Your task to perform on an android device: Go to eBay Image 0: 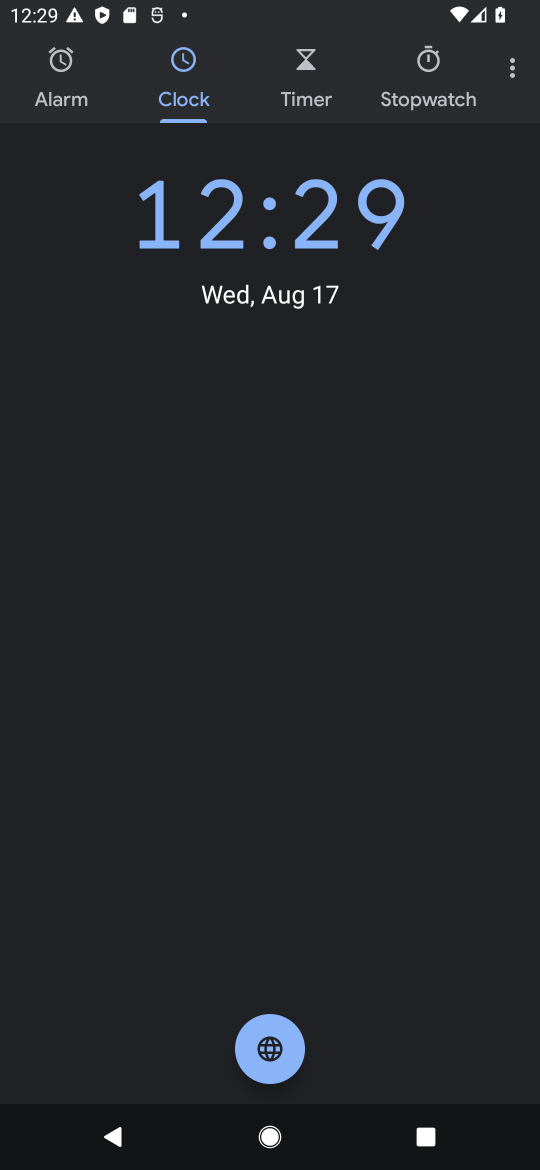
Step 0: press home button
Your task to perform on an android device: Go to eBay Image 1: 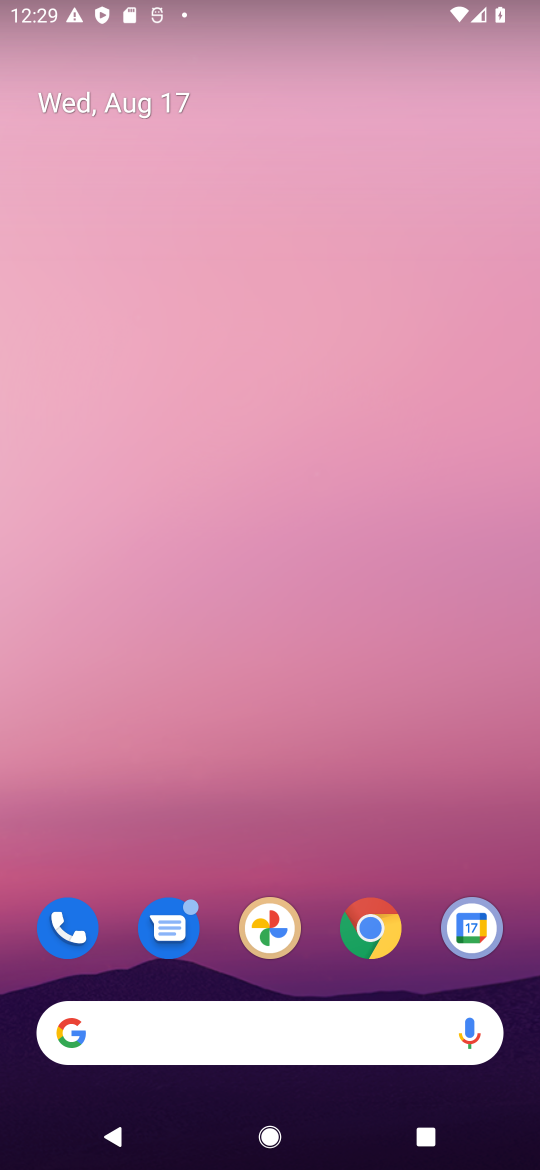
Step 1: click (352, 926)
Your task to perform on an android device: Go to eBay Image 2: 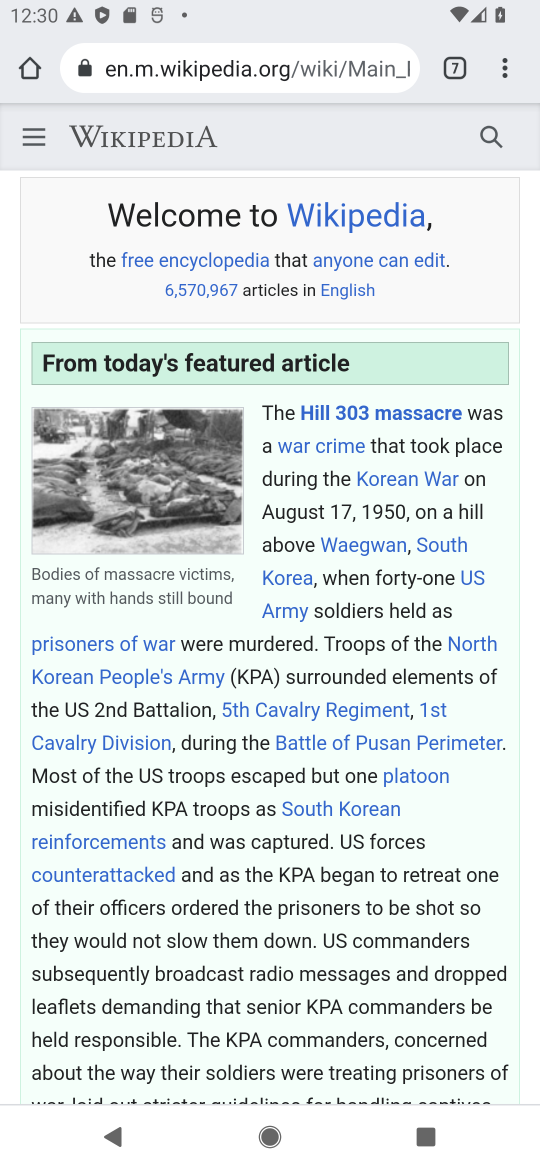
Step 2: click (466, 69)
Your task to perform on an android device: Go to eBay Image 3: 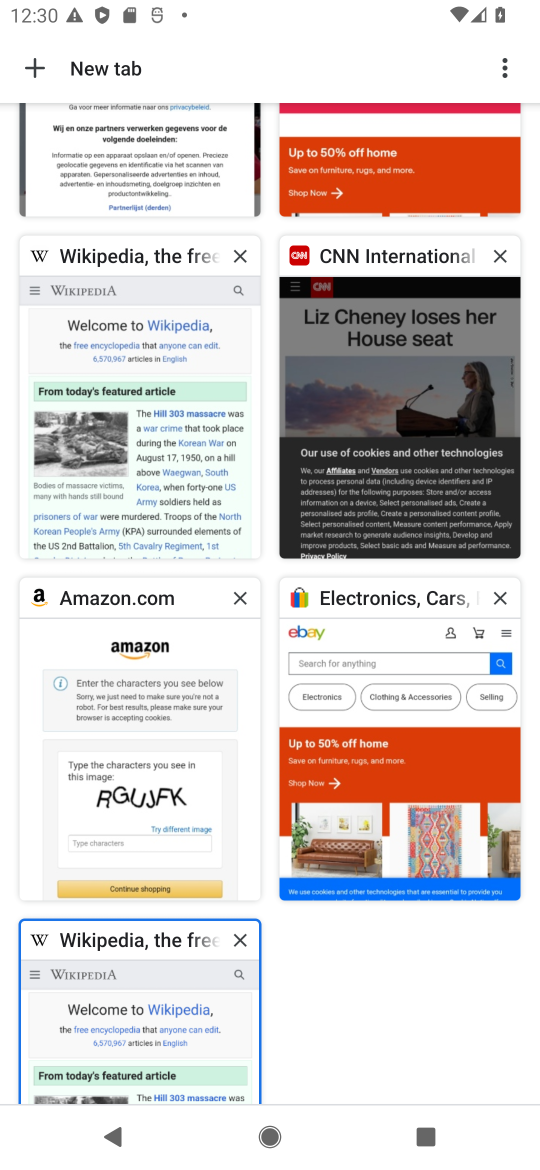
Step 3: click (27, 59)
Your task to perform on an android device: Go to eBay Image 4: 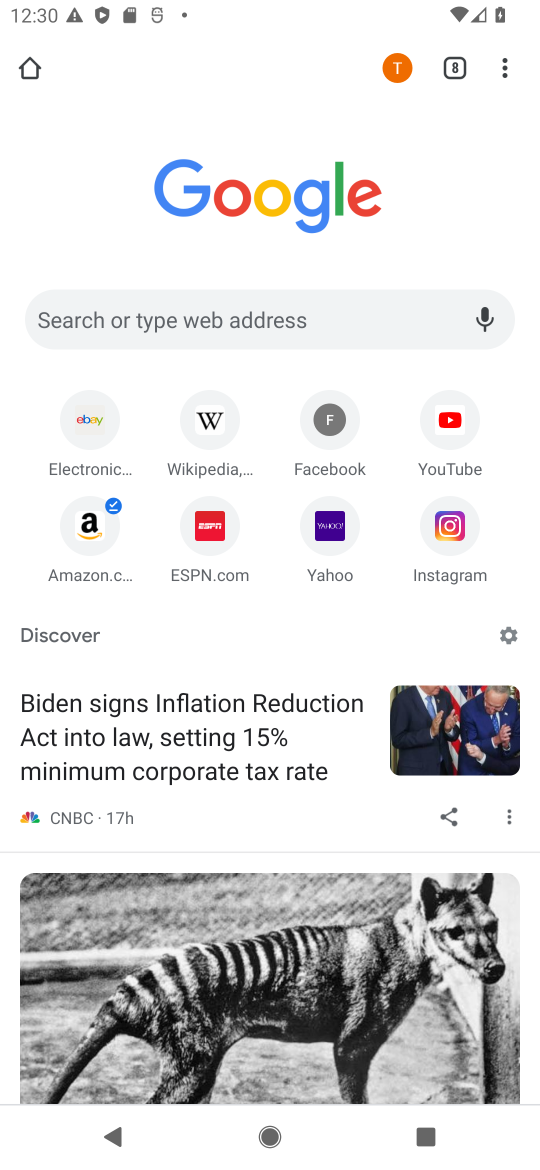
Step 4: click (91, 433)
Your task to perform on an android device: Go to eBay Image 5: 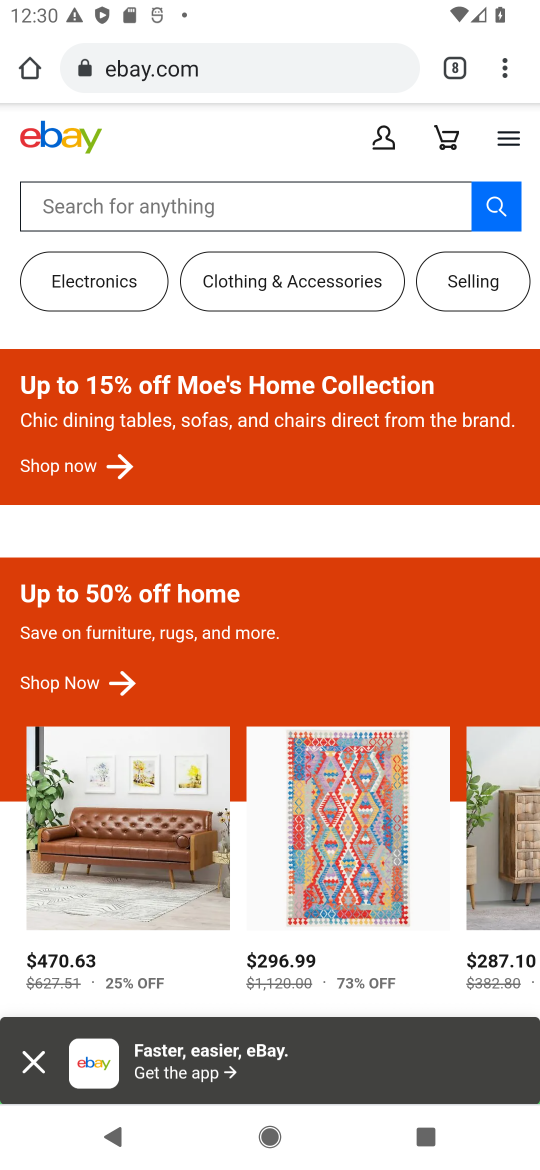
Step 5: task complete